Your task to perform on an android device: turn off translation in the chrome app Image 0: 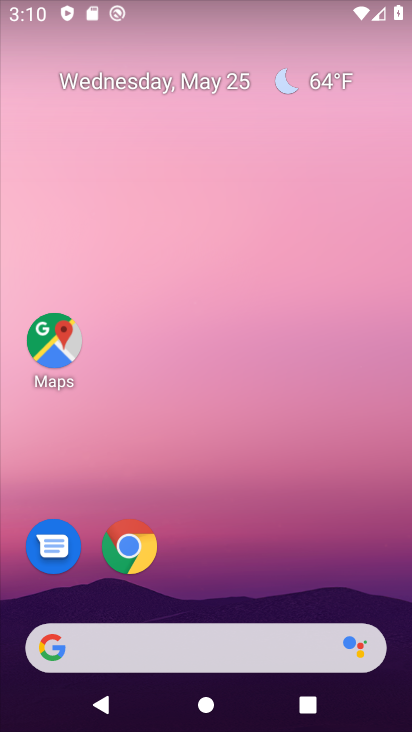
Step 0: click (124, 537)
Your task to perform on an android device: turn off translation in the chrome app Image 1: 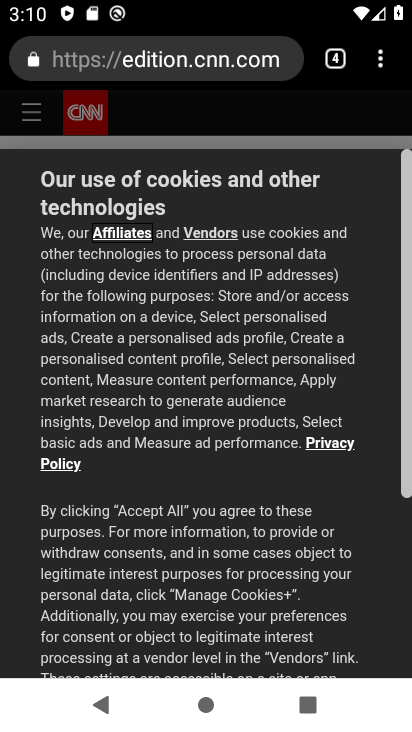
Step 1: click (385, 61)
Your task to perform on an android device: turn off translation in the chrome app Image 2: 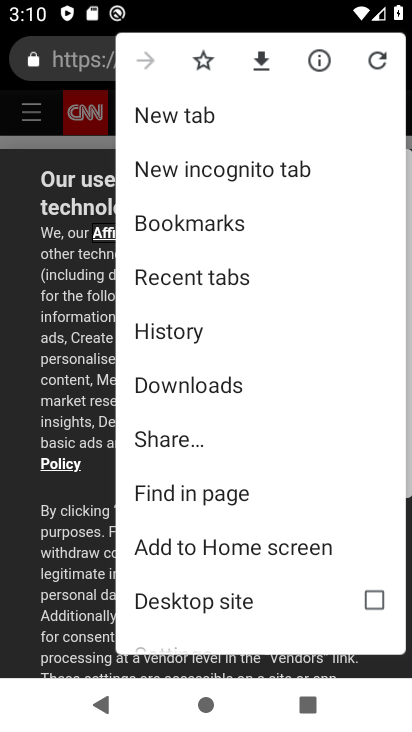
Step 2: drag from (219, 572) to (204, 296)
Your task to perform on an android device: turn off translation in the chrome app Image 3: 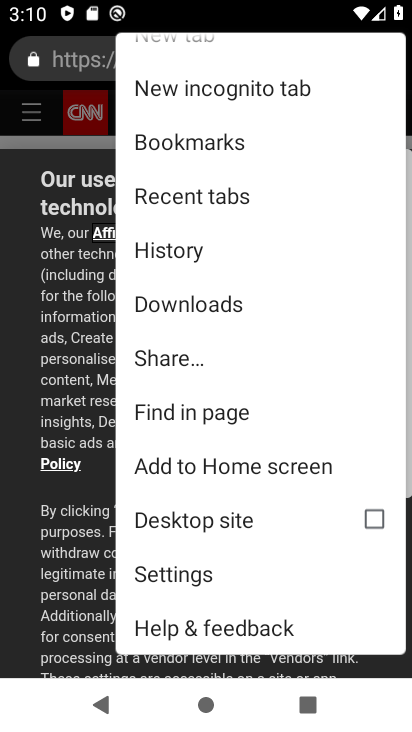
Step 3: click (155, 583)
Your task to perform on an android device: turn off translation in the chrome app Image 4: 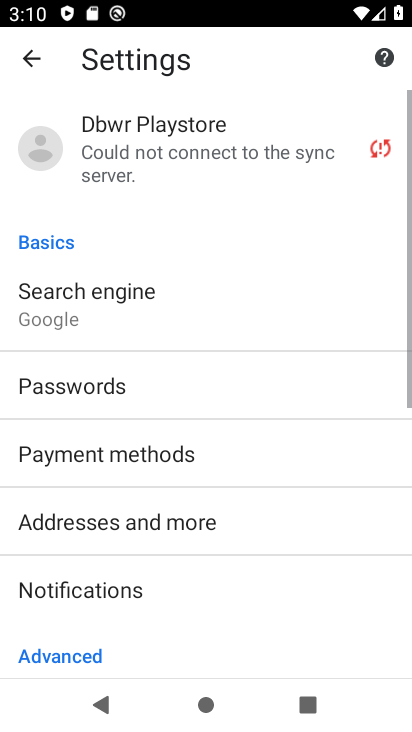
Step 4: drag from (141, 634) to (215, 259)
Your task to perform on an android device: turn off translation in the chrome app Image 5: 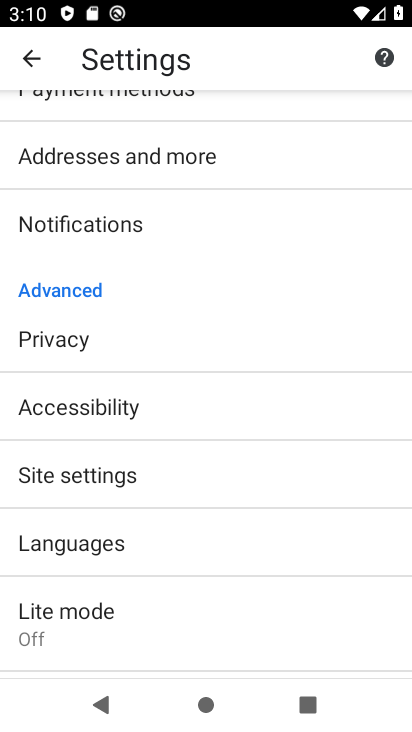
Step 5: click (87, 554)
Your task to perform on an android device: turn off translation in the chrome app Image 6: 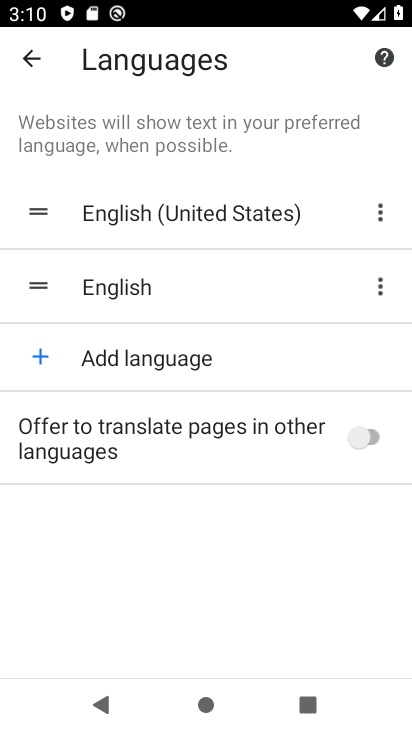
Step 6: task complete